Your task to perform on an android device: check the backup settings in the google photos Image 0: 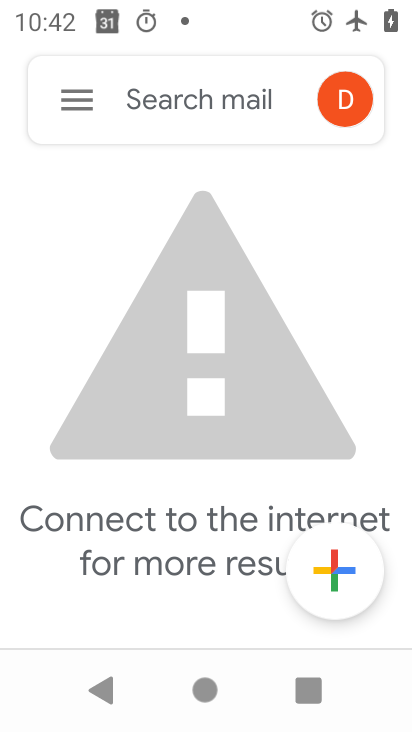
Step 0: press home button
Your task to perform on an android device: check the backup settings in the google photos Image 1: 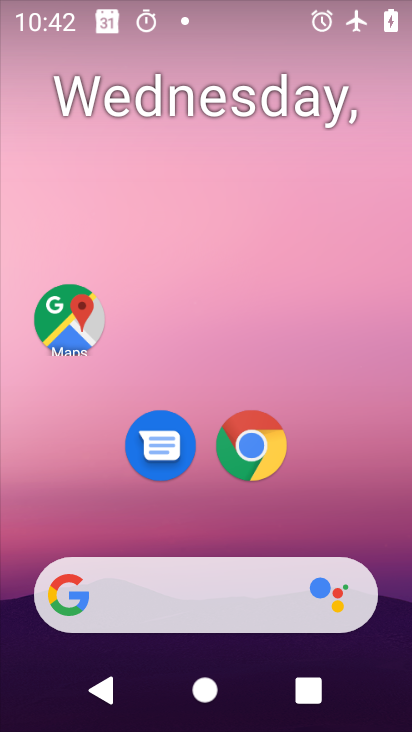
Step 1: drag from (294, 514) to (340, 51)
Your task to perform on an android device: check the backup settings in the google photos Image 2: 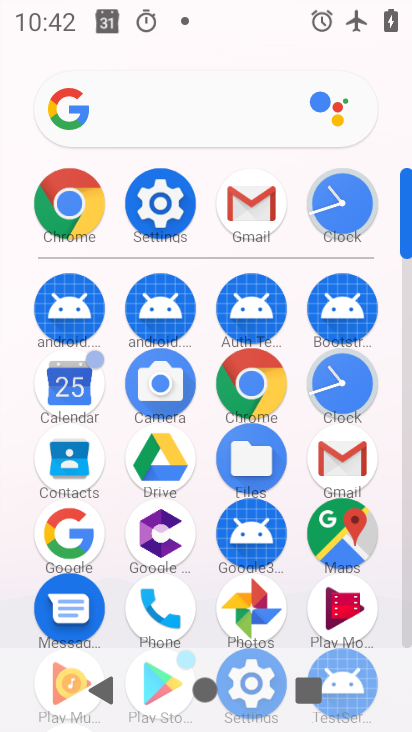
Step 2: click (167, 187)
Your task to perform on an android device: check the backup settings in the google photos Image 3: 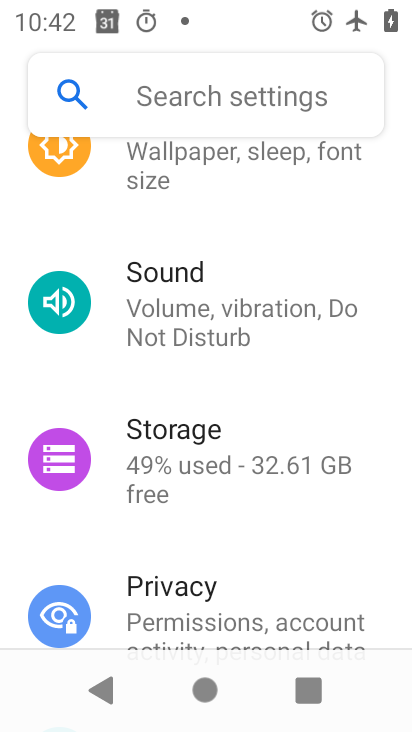
Step 3: drag from (175, 225) to (268, 602)
Your task to perform on an android device: check the backup settings in the google photos Image 4: 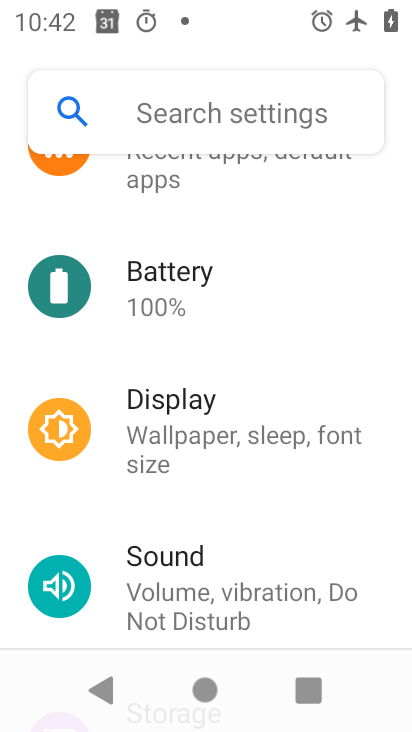
Step 4: drag from (283, 214) to (336, 587)
Your task to perform on an android device: check the backup settings in the google photos Image 5: 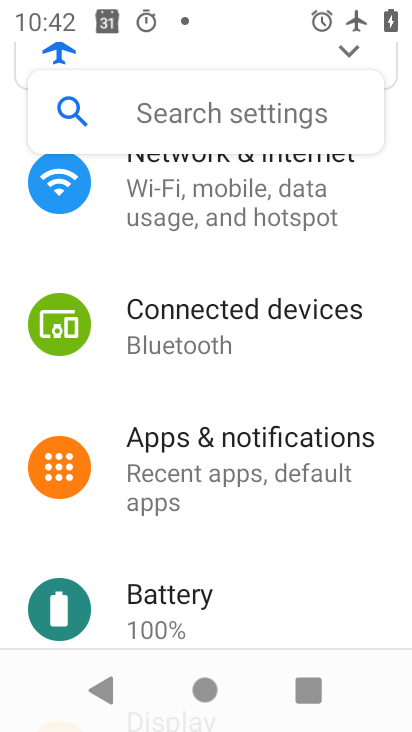
Step 5: drag from (254, 205) to (269, 548)
Your task to perform on an android device: check the backup settings in the google photos Image 6: 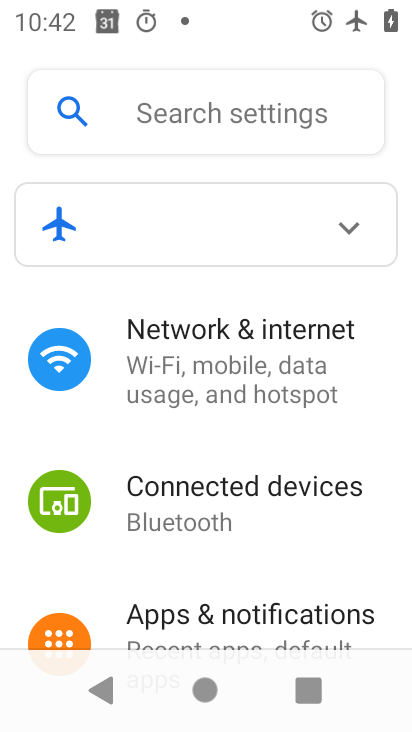
Step 6: click (190, 367)
Your task to perform on an android device: check the backup settings in the google photos Image 7: 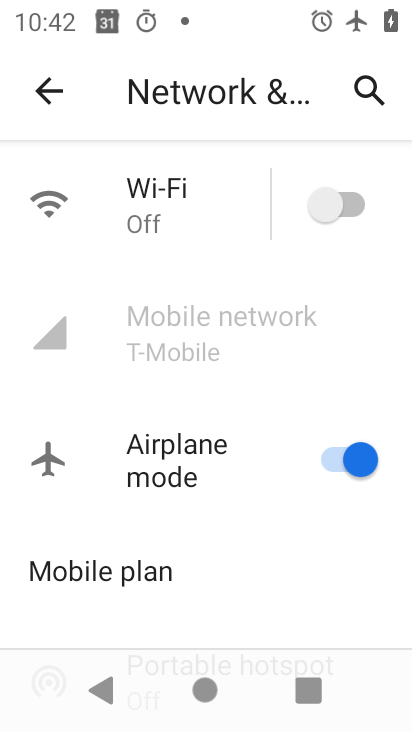
Step 7: drag from (181, 556) to (231, 180)
Your task to perform on an android device: check the backup settings in the google photos Image 8: 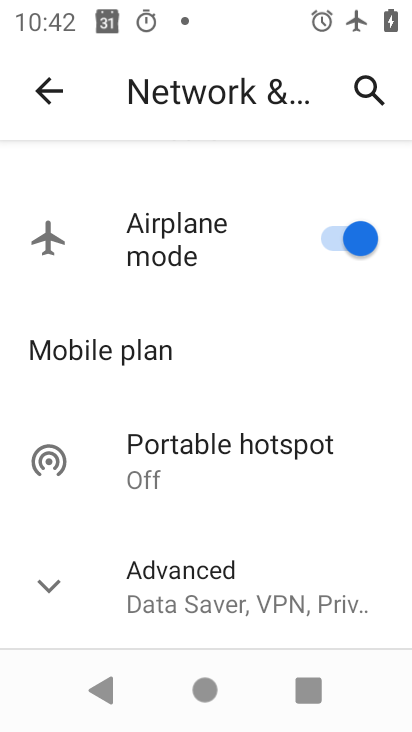
Step 8: drag from (200, 571) to (259, 187)
Your task to perform on an android device: check the backup settings in the google photos Image 9: 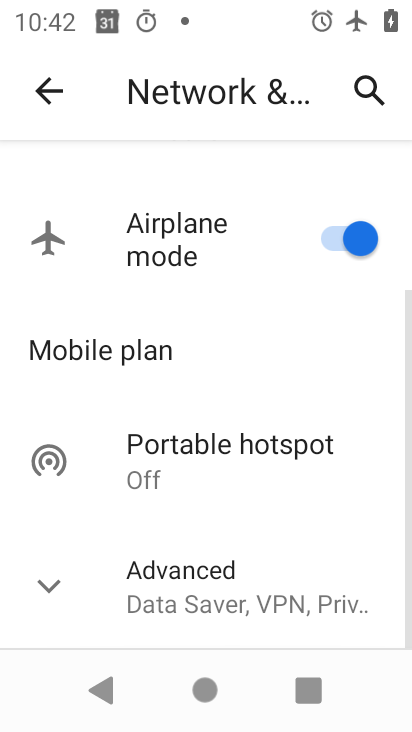
Step 9: drag from (254, 221) to (287, 603)
Your task to perform on an android device: check the backup settings in the google photos Image 10: 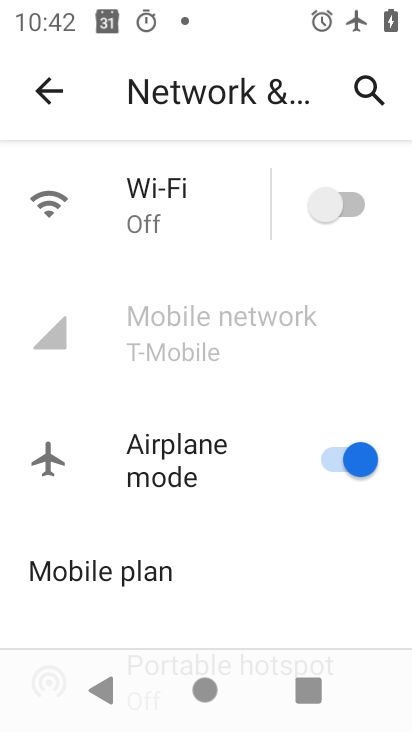
Step 10: drag from (237, 308) to (288, 616)
Your task to perform on an android device: check the backup settings in the google photos Image 11: 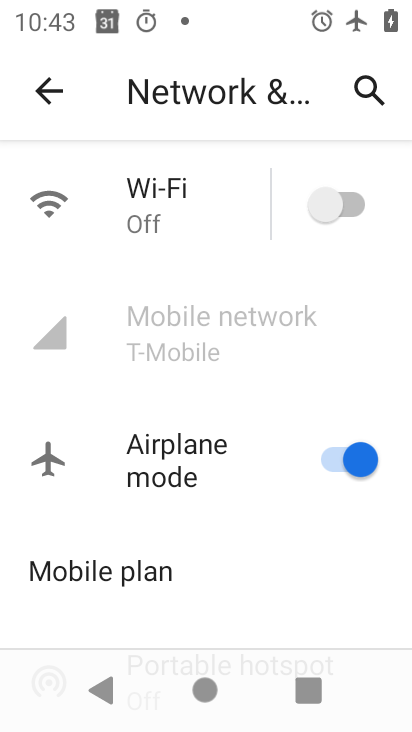
Step 11: drag from (279, 608) to (252, 249)
Your task to perform on an android device: check the backup settings in the google photos Image 12: 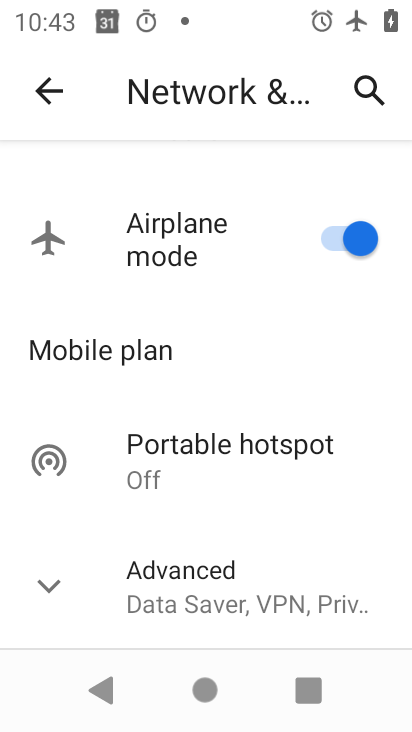
Step 12: click (60, 97)
Your task to perform on an android device: check the backup settings in the google photos Image 13: 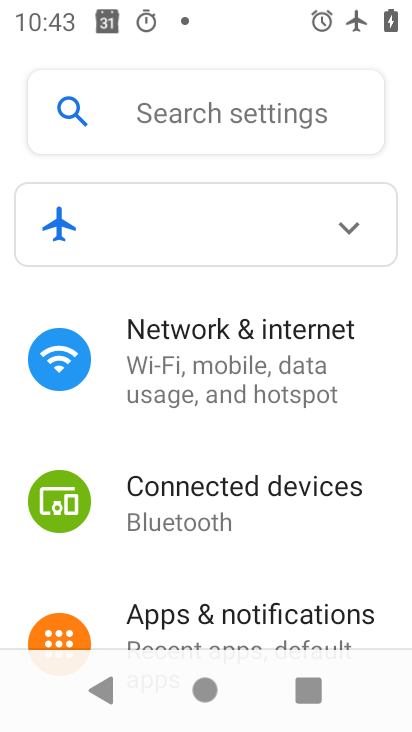
Step 13: click (242, 340)
Your task to perform on an android device: check the backup settings in the google photos Image 14: 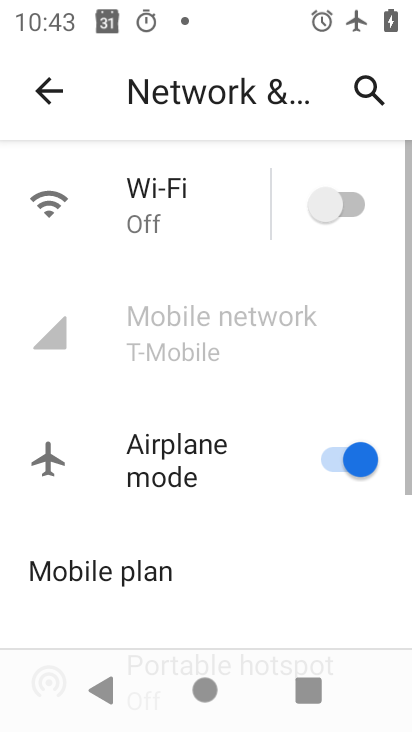
Step 14: drag from (275, 496) to (291, 192)
Your task to perform on an android device: check the backup settings in the google photos Image 15: 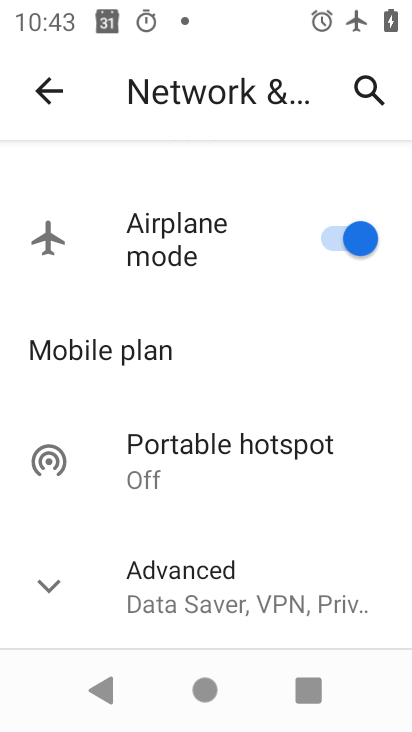
Step 15: drag from (278, 270) to (353, 676)
Your task to perform on an android device: check the backup settings in the google photos Image 16: 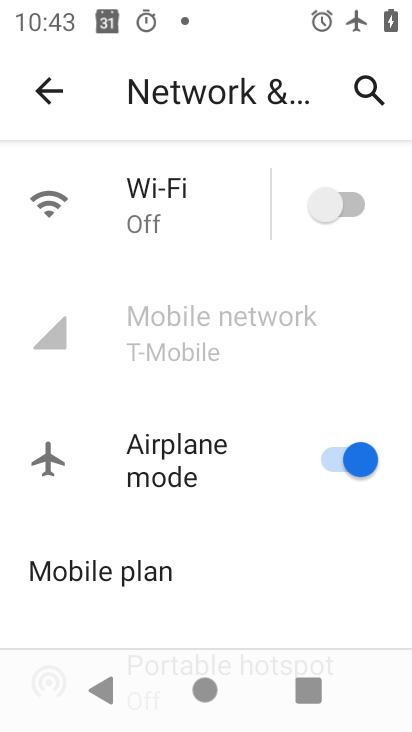
Step 16: click (346, 453)
Your task to perform on an android device: check the backup settings in the google photos Image 17: 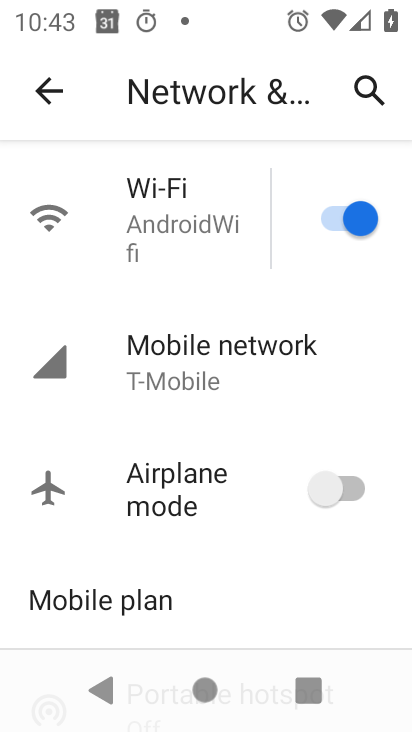
Step 17: task complete